Your task to perform on an android device: turn off sleep mode Image 0: 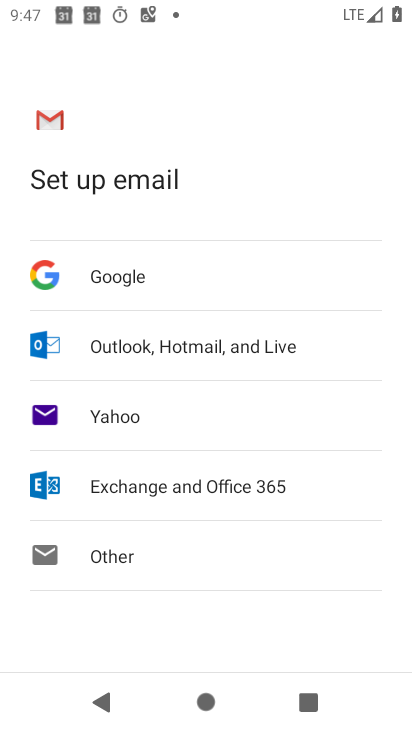
Step 0: press home button
Your task to perform on an android device: turn off sleep mode Image 1: 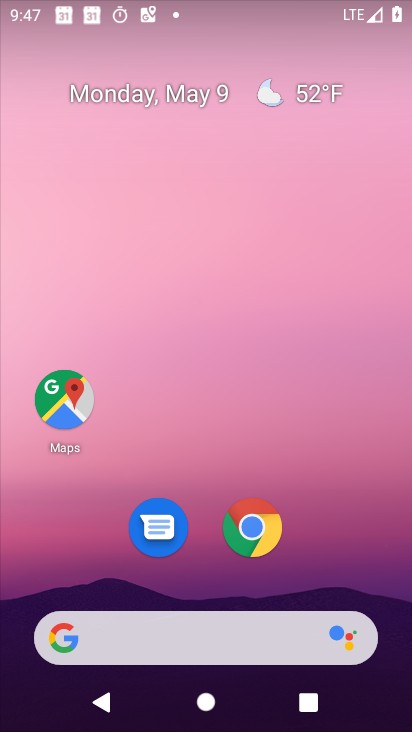
Step 1: drag from (356, 558) to (302, 136)
Your task to perform on an android device: turn off sleep mode Image 2: 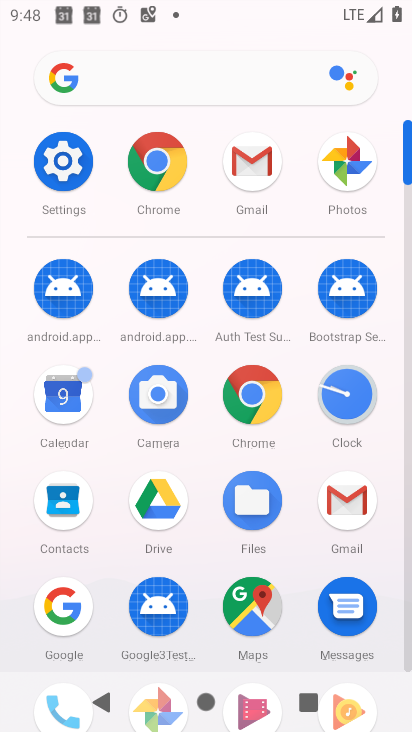
Step 2: click (52, 157)
Your task to perform on an android device: turn off sleep mode Image 3: 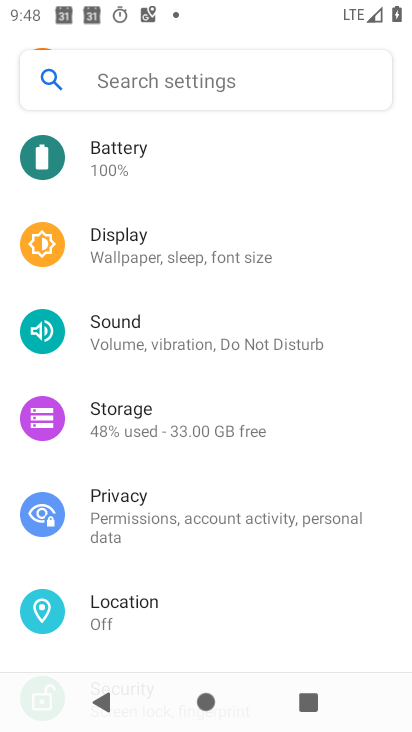
Step 3: click (193, 80)
Your task to perform on an android device: turn off sleep mode Image 4: 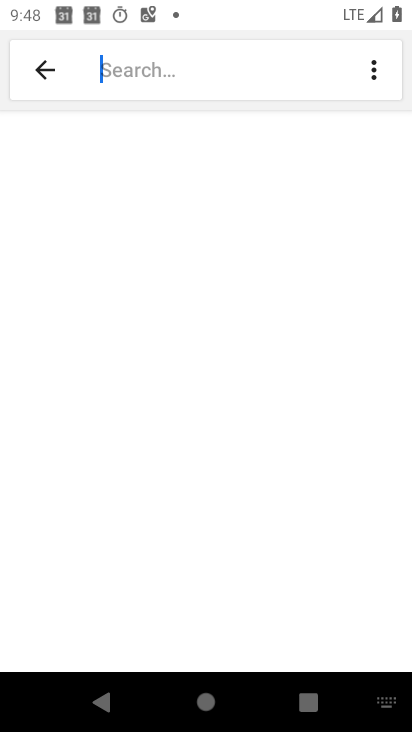
Step 4: type "sleep mode"
Your task to perform on an android device: turn off sleep mode Image 5: 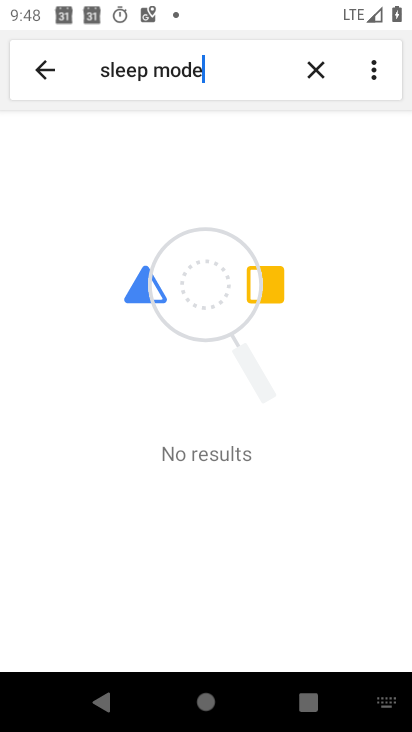
Step 5: task complete